Your task to perform on an android device: Open display settings Image 0: 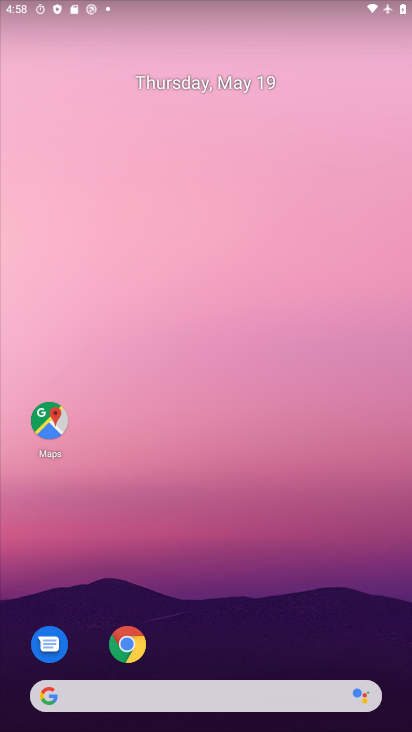
Step 0: drag from (193, 654) to (258, 227)
Your task to perform on an android device: Open display settings Image 1: 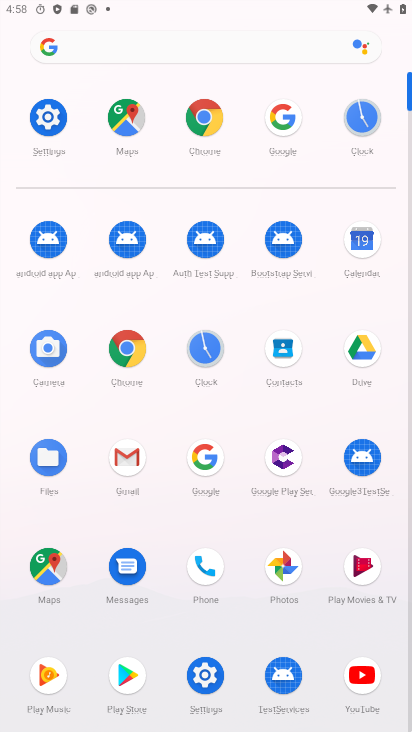
Step 1: click (47, 107)
Your task to perform on an android device: Open display settings Image 2: 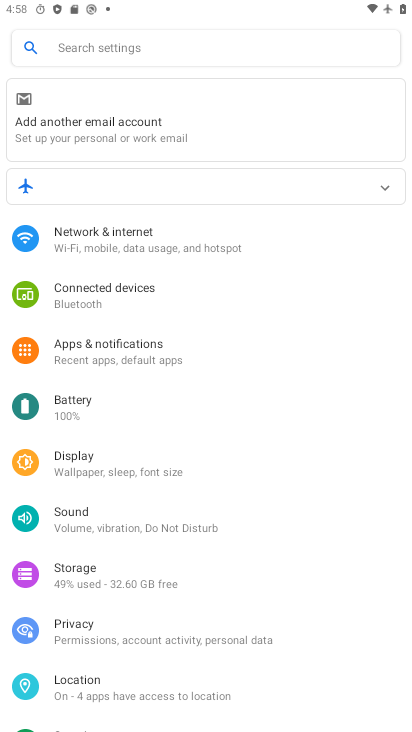
Step 2: click (95, 465)
Your task to perform on an android device: Open display settings Image 3: 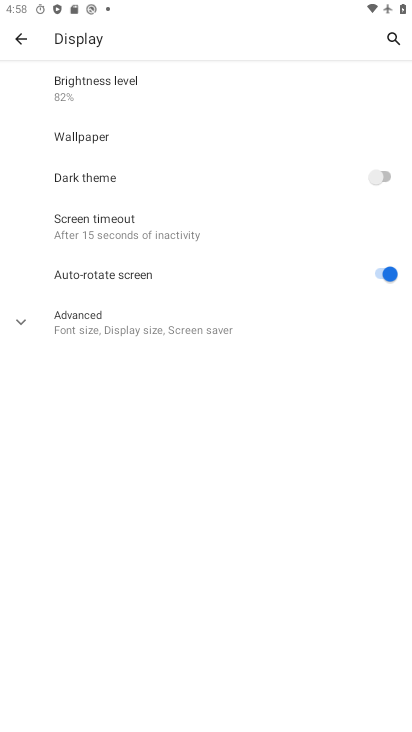
Step 3: click (138, 320)
Your task to perform on an android device: Open display settings Image 4: 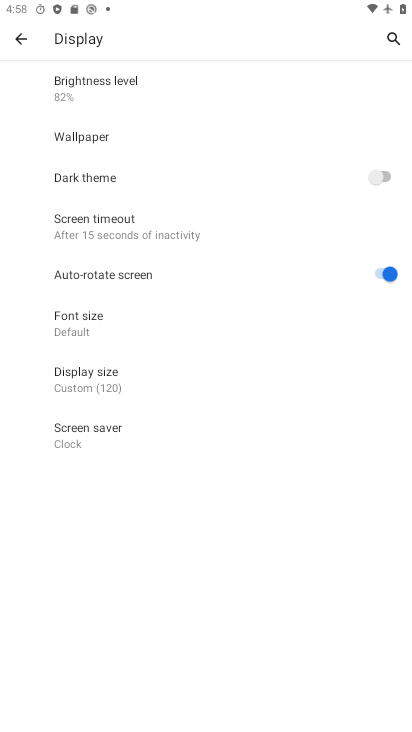
Step 4: task complete